Your task to perform on an android device: Is it going to rain today? Image 0: 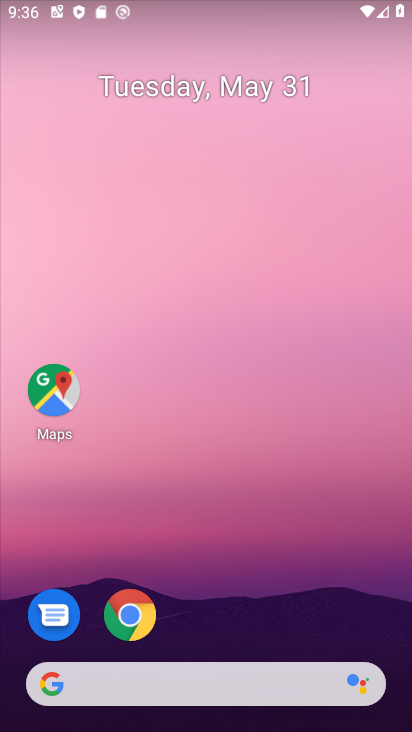
Step 0: drag from (17, 277) to (387, 376)
Your task to perform on an android device: Is it going to rain today? Image 1: 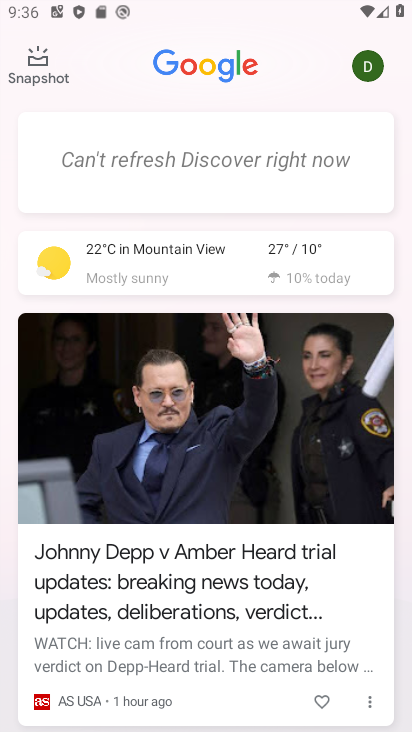
Step 1: click (290, 262)
Your task to perform on an android device: Is it going to rain today? Image 2: 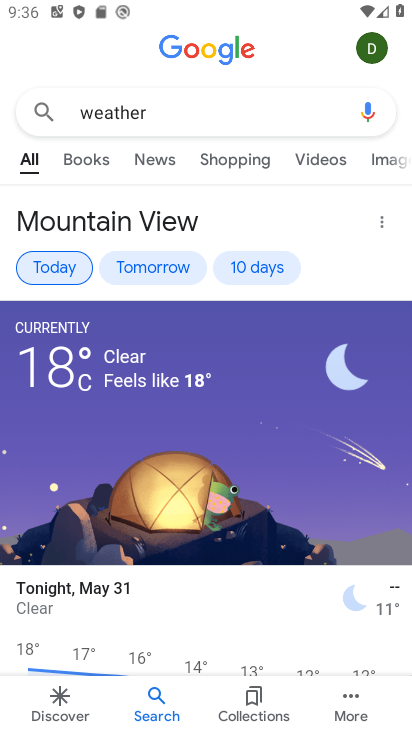
Step 2: task complete